Your task to perform on an android device: delete location history Image 0: 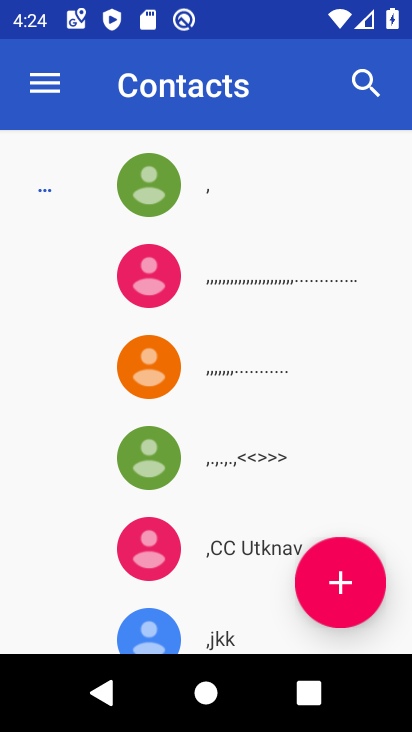
Step 0: press home button
Your task to perform on an android device: delete location history Image 1: 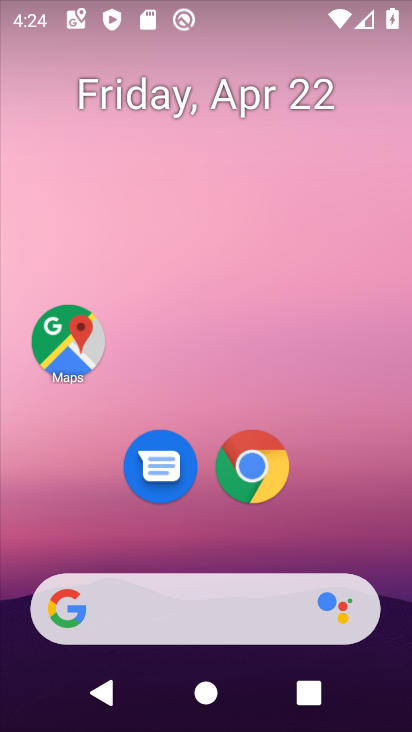
Step 1: click (85, 346)
Your task to perform on an android device: delete location history Image 2: 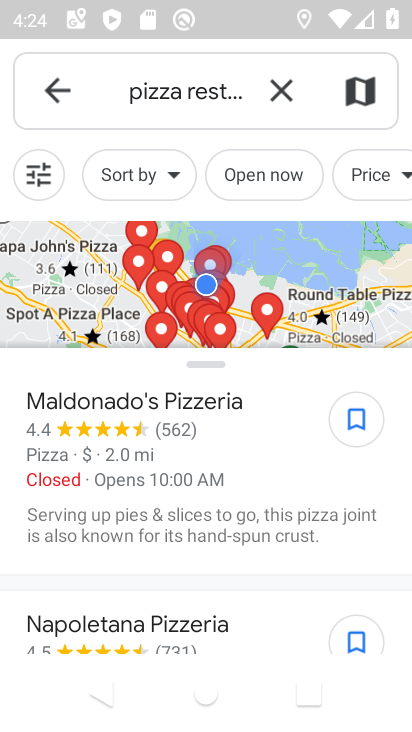
Step 2: click (44, 96)
Your task to perform on an android device: delete location history Image 3: 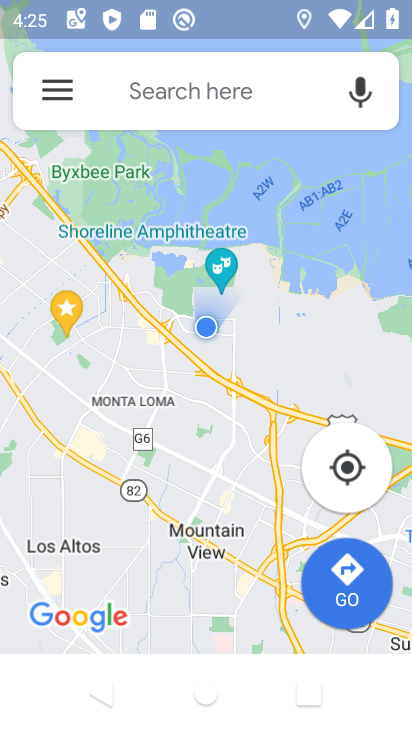
Step 3: click (44, 96)
Your task to perform on an android device: delete location history Image 4: 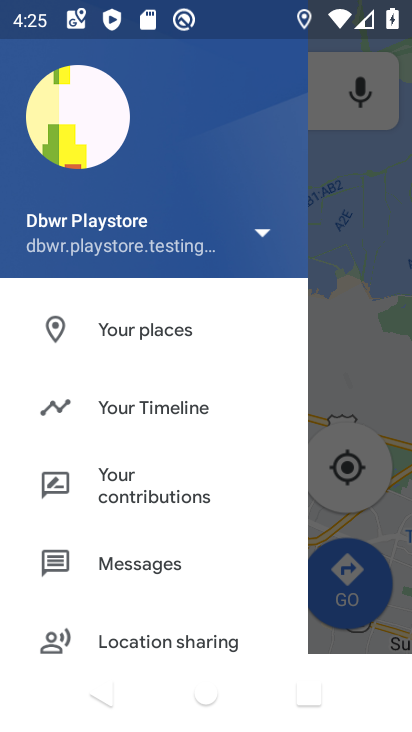
Step 4: click (217, 414)
Your task to perform on an android device: delete location history Image 5: 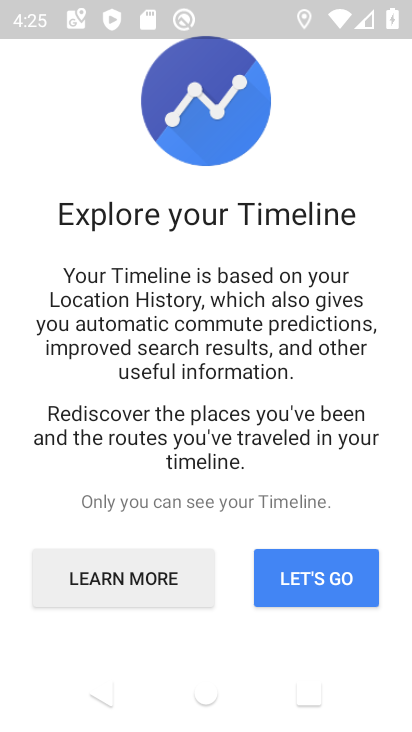
Step 5: click (353, 597)
Your task to perform on an android device: delete location history Image 6: 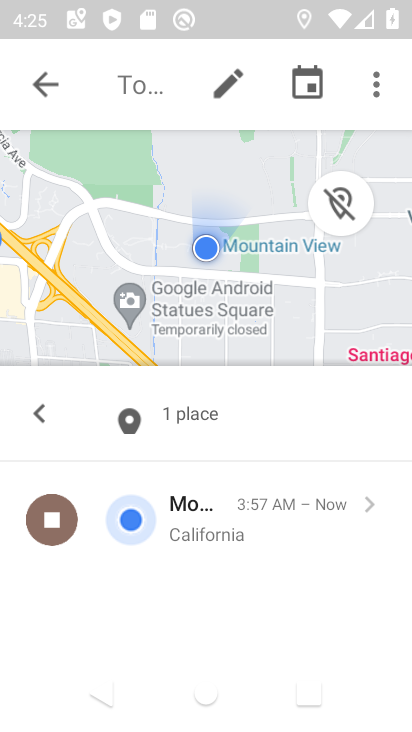
Step 6: click (372, 125)
Your task to perform on an android device: delete location history Image 7: 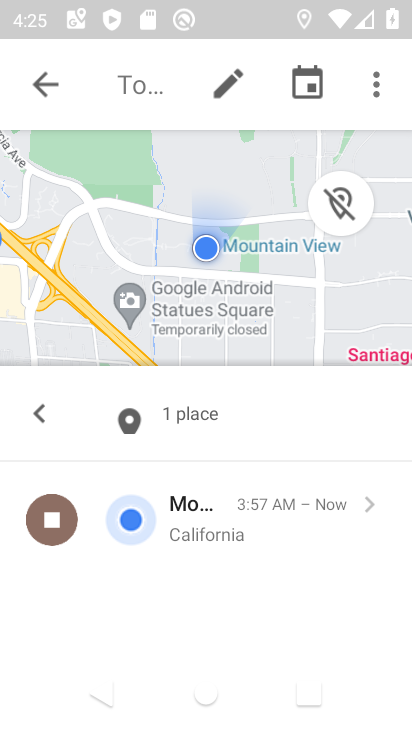
Step 7: click (379, 95)
Your task to perform on an android device: delete location history Image 8: 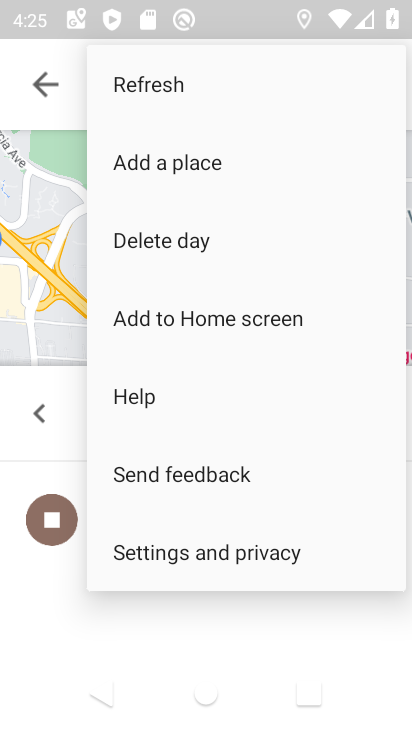
Step 8: click (223, 570)
Your task to perform on an android device: delete location history Image 9: 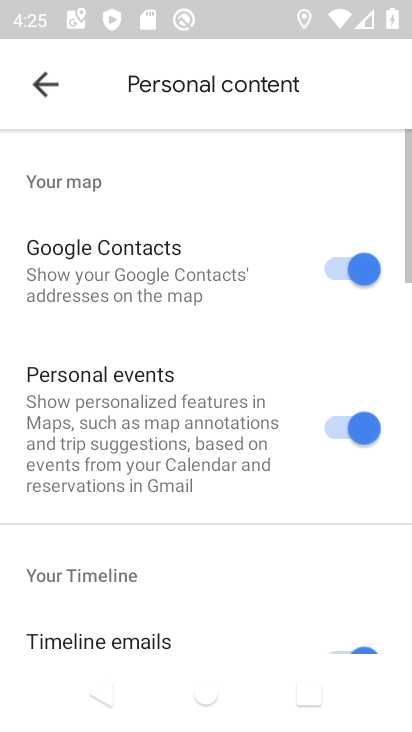
Step 9: drag from (223, 570) to (293, 184)
Your task to perform on an android device: delete location history Image 10: 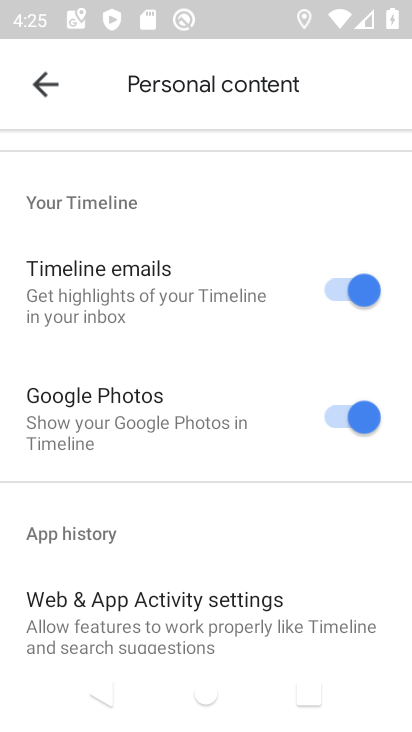
Step 10: drag from (176, 591) to (206, 288)
Your task to perform on an android device: delete location history Image 11: 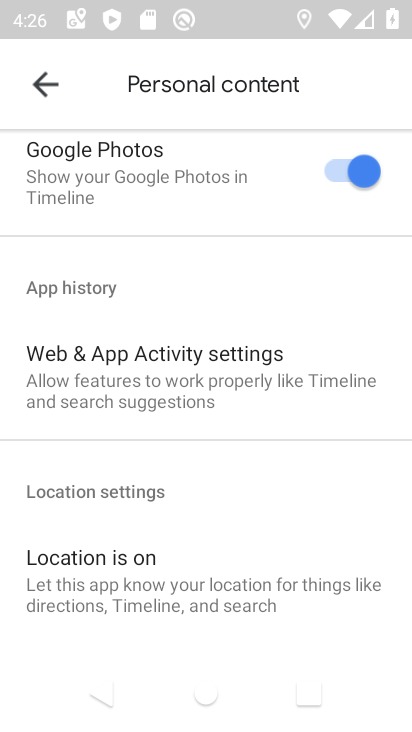
Step 11: drag from (257, 492) to (266, 221)
Your task to perform on an android device: delete location history Image 12: 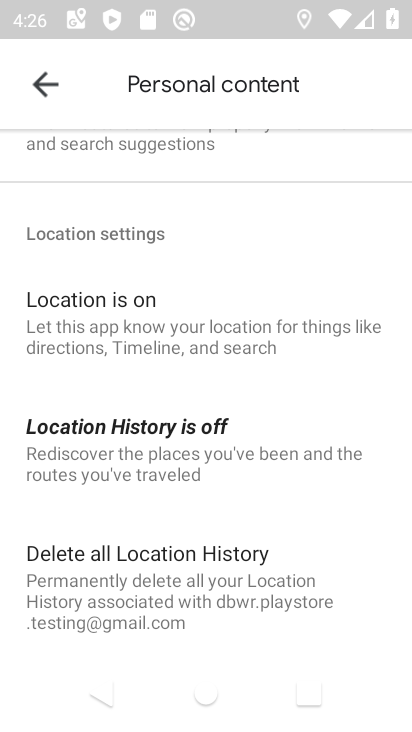
Step 12: click (272, 584)
Your task to perform on an android device: delete location history Image 13: 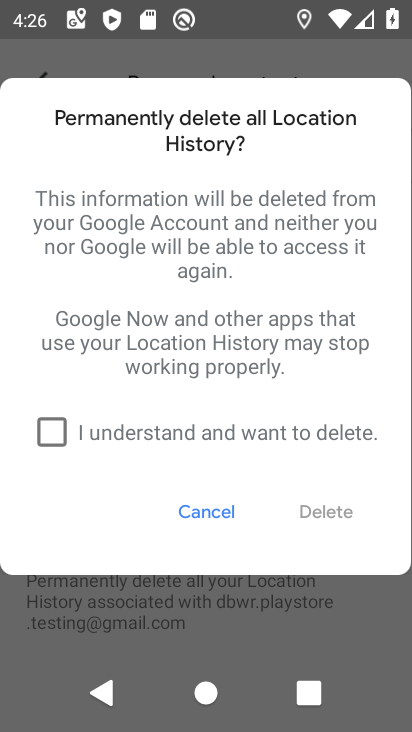
Step 13: click (186, 443)
Your task to perform on an android device: delete location history Image 14: 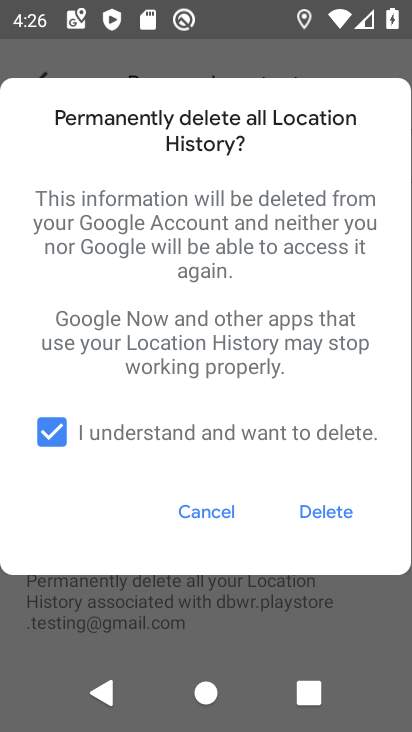
Step 14: click (330, 511)
Your task to perform on an android device: delete location history Image 15: 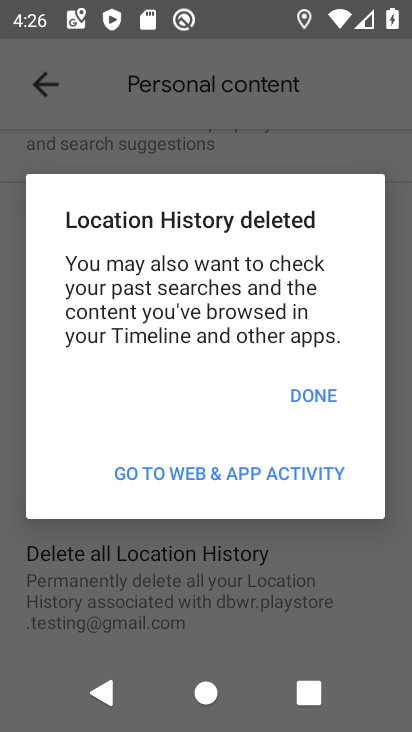
Step 15: click (303, 410)
Your task to perform on an android device: delete location history Image 16: 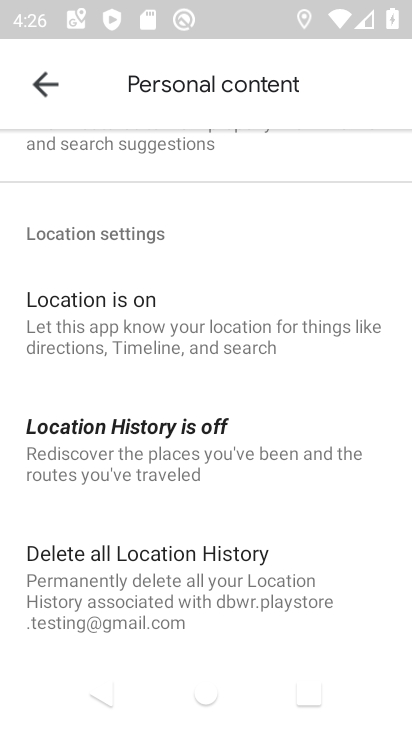
Step 16: task complete